Your task to perform on an android device: read, delete, or share a saved page in the chrome app Image 0: 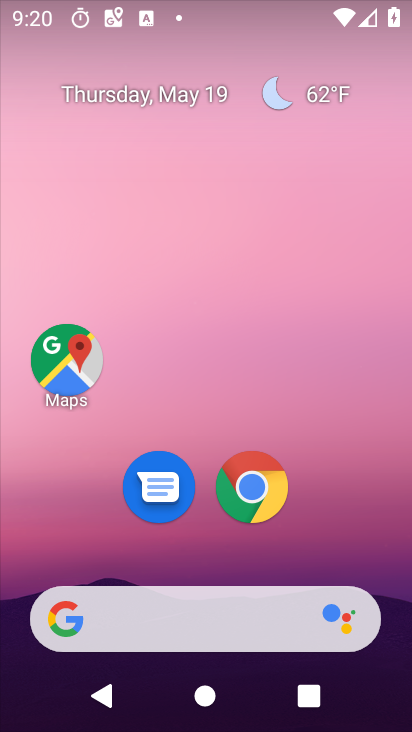
Step 0: click (240, 508)
Your task to perform on an android device: read, delete, or share a saved page in the chrome app Image 1: 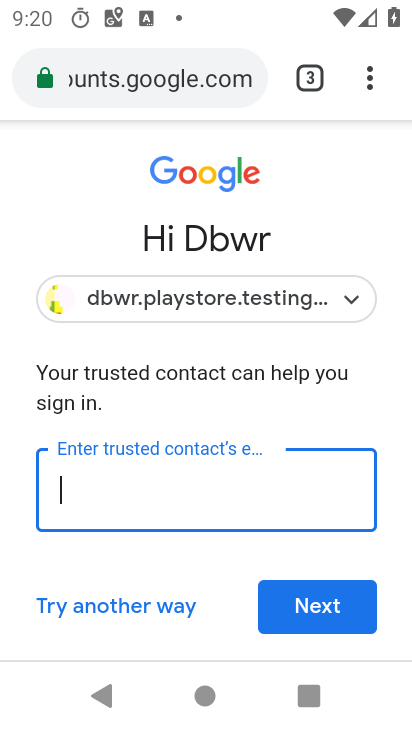
Step 1: click (367, 84)
Your task to perform on an android device: read, delete, or share a saved page in the chrome app Image 2: 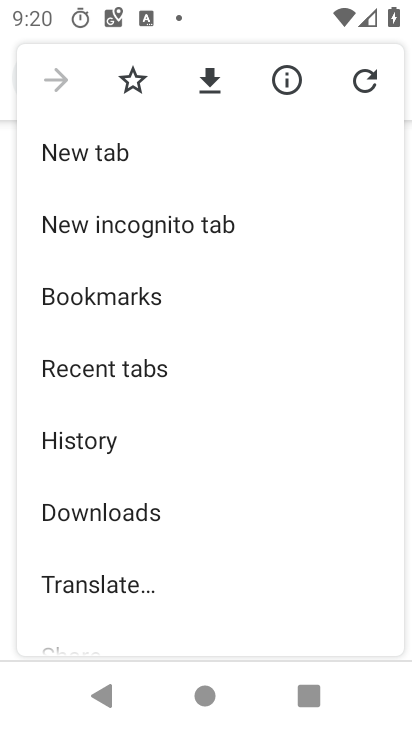
Step 2: click (209, 83)
Your task to perform on an android device: read, delete, or share a saved page in the chrome app Image 3: 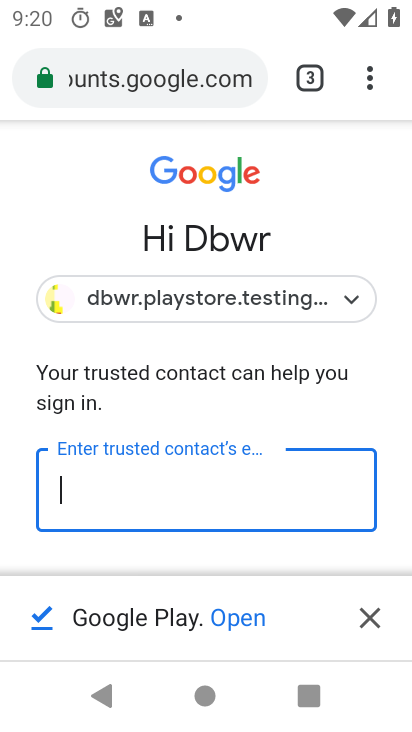
Step 3: click (117, 692)
Your task to perform on an android device: read, delete, or share a saved page in the chrome app Image 4: 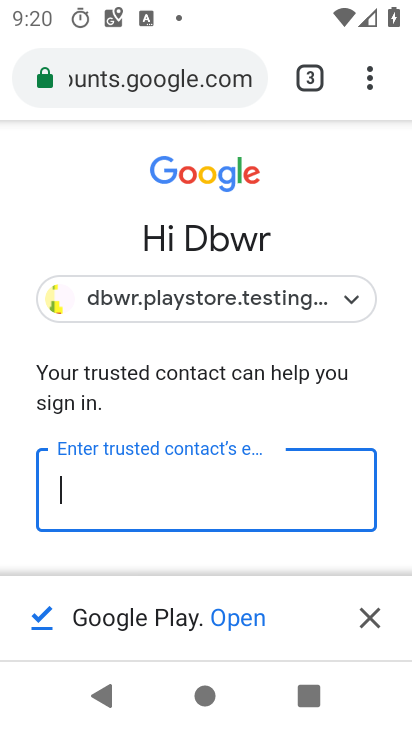
Step 4: press back button
Your task to perform on an android device: read, delete, or share a saved page in the chrome app Image 5: 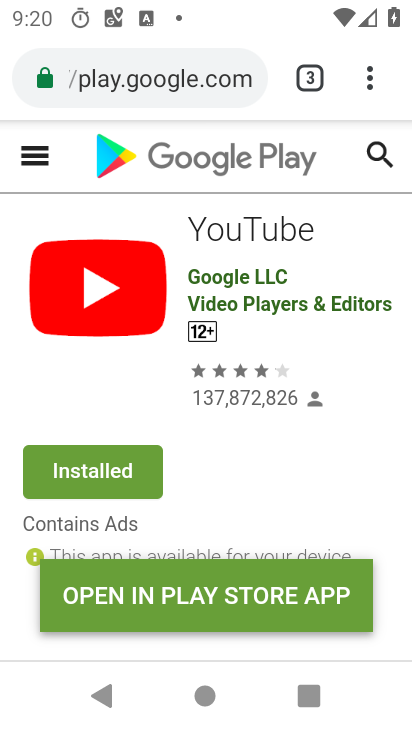
Step 5: press back button
Your task to perform on an android device: read, delete, or share a saved page in the chrome app Image 6: 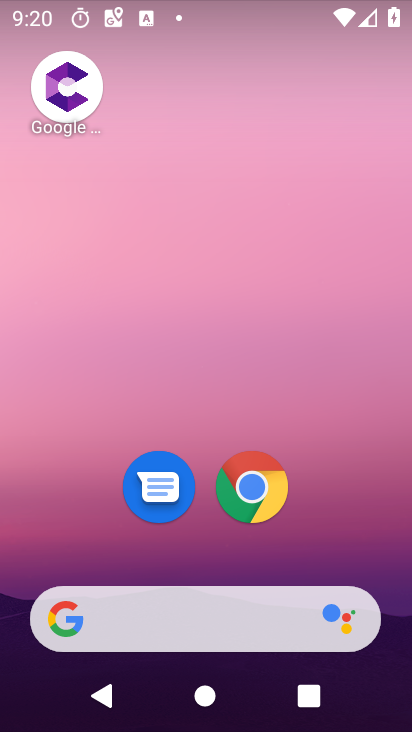
Step 6: click (238, 496)
Your task to perform on an android device: read, delete, or share a saved page in the chrome app Image 7: 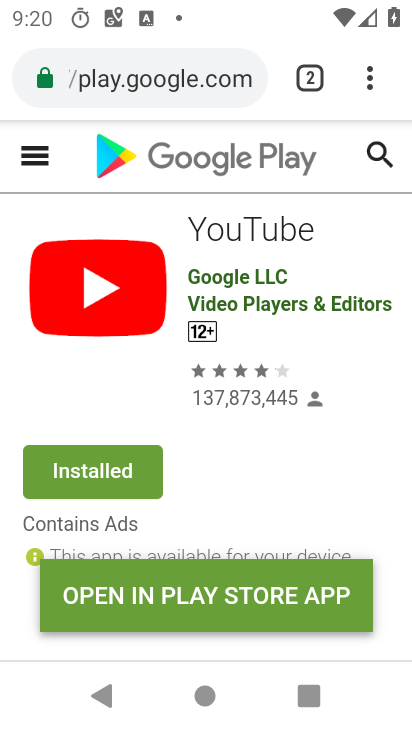
Step 7: click (366, 69)
Your task to perform on an android device: read, delete, or share a saved page in the chrome app Image 8: 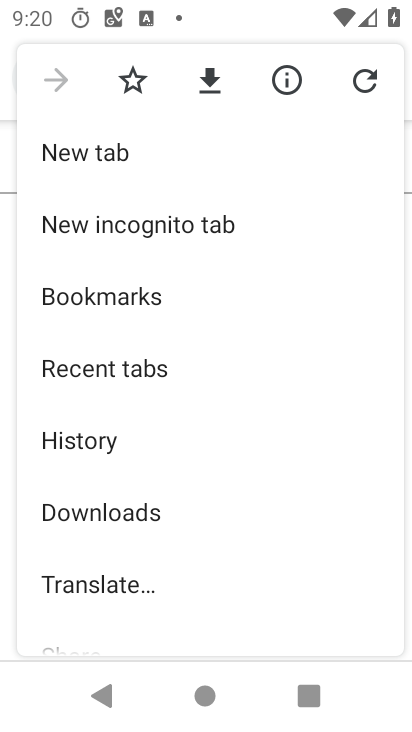
Step 8: click (162, 523)
Your task to perform on an android device: read, delete, or share a saved page in the chrome app Image 9: 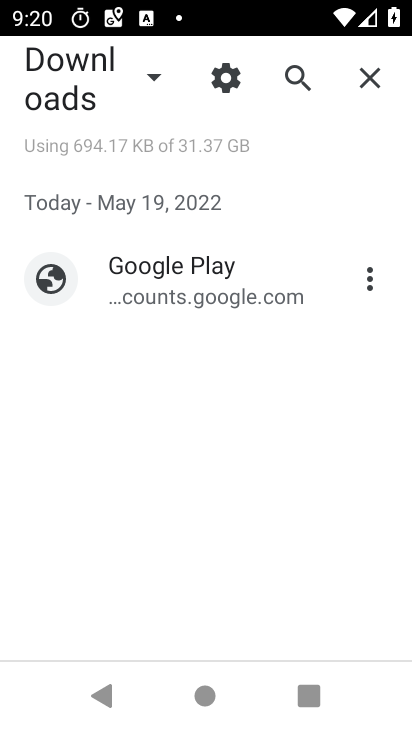
Step 9: click (59, 70)
Your task to perform on an android device: read, delete, or share a saved page in the chrome app Image 10: 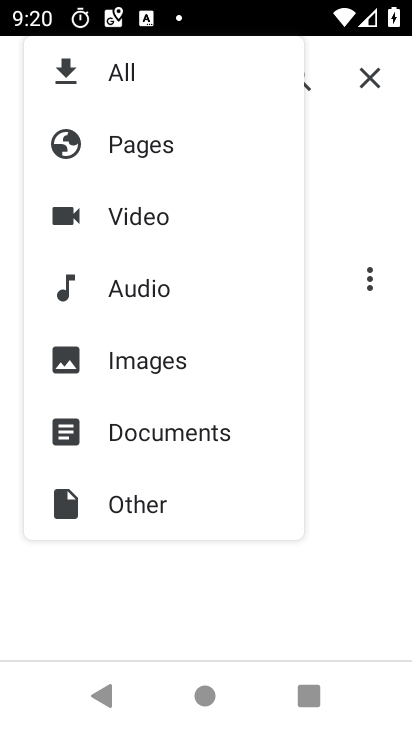
Step 10: click (122, 138)
Your task to perform on an android device: read, delete, or share a saved page in the chrome app Image 11: 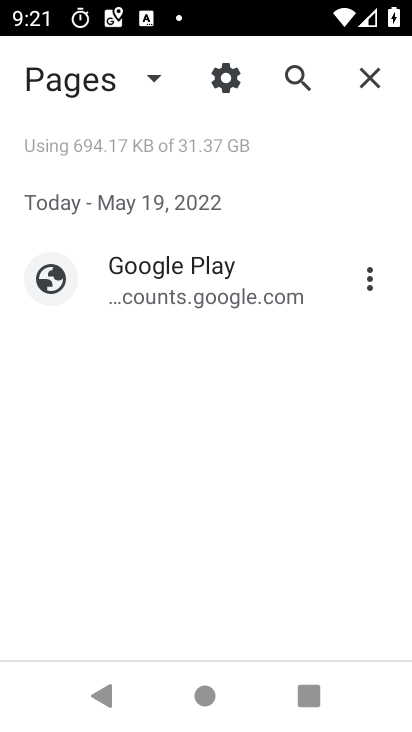
Step 11: click (281, 279)
Your task to perform on an android device: read, delete, or share a saved page in the chrome app Image 12: 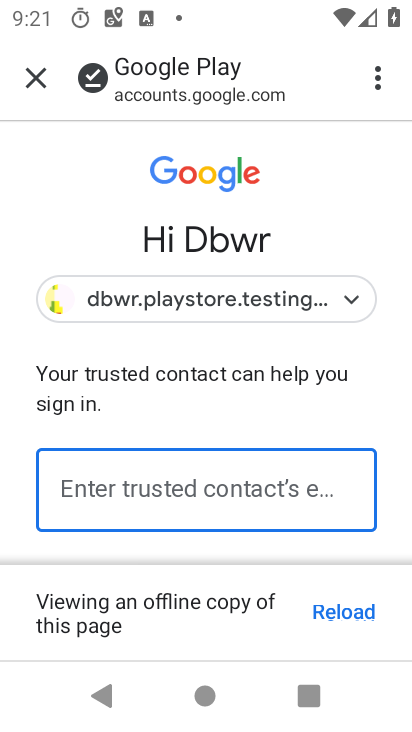
Step 12: task complete